Your task to perform on an android device: Go to Yahoo.com Image 0: 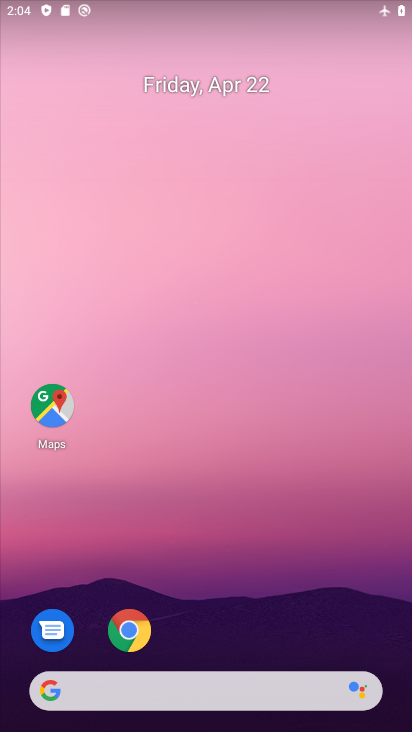
Step 0: drag from (341, 531) to (288, 99)
Your task to perform on an android device: Go to Yahoo.com Image 1: 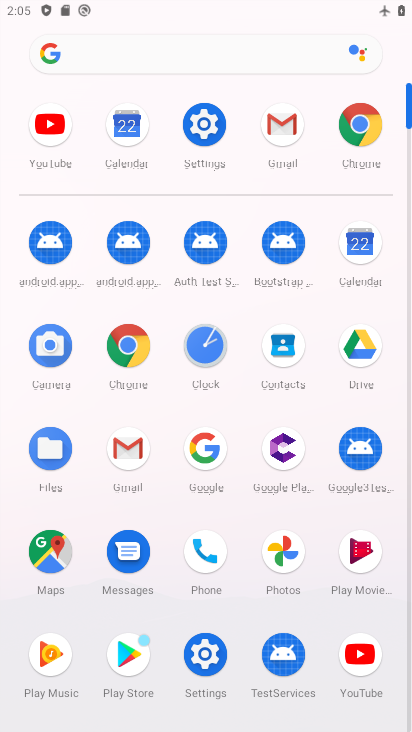
Step 1: click (125, 328)
Your task to perform on an android device: Go to Yahoo.com Image 2: 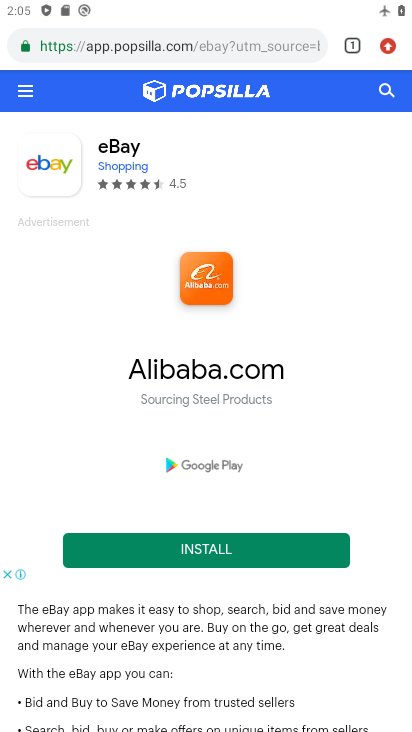
Step 2: click (279, 43)
Your task to perform on an android device: Go to Yahoo.com Image 3: 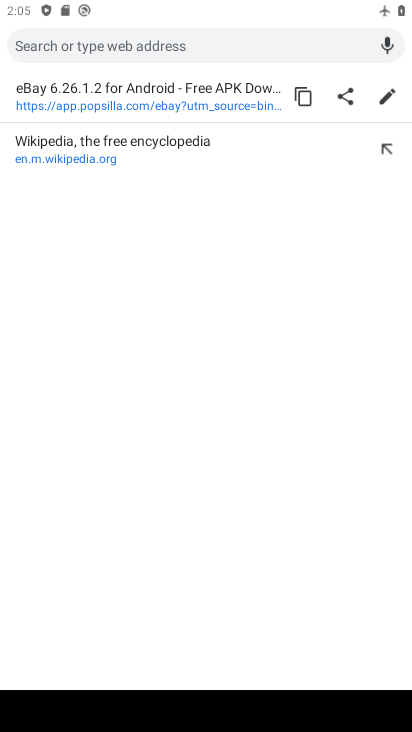
Step 3: type "yahoo.com"
Your task to perform on an android device: Go to Yahoo.com Image 4: 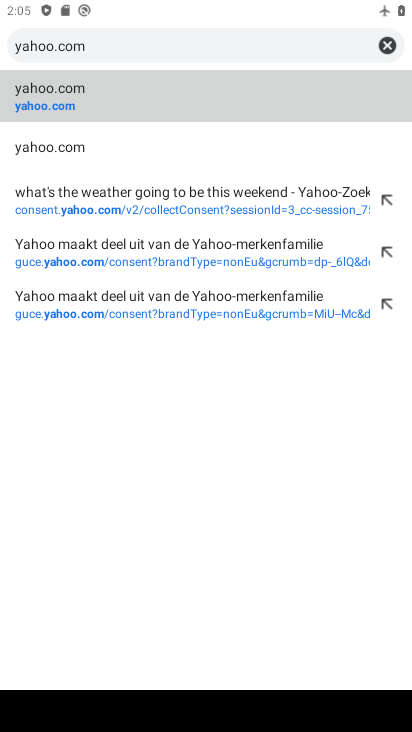
Step 4: click (61, 109)
Your task to perform on an android device: Go to Yahoo.com Image 5: 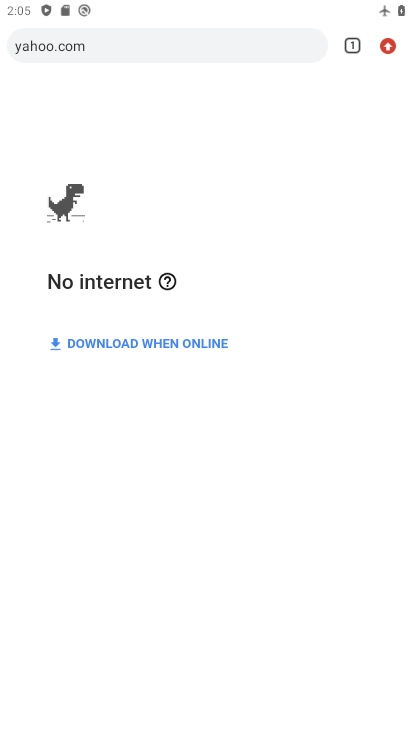
Step 5: task complete